Your task to perform on an android device: Go to accessibility settings Image 0: 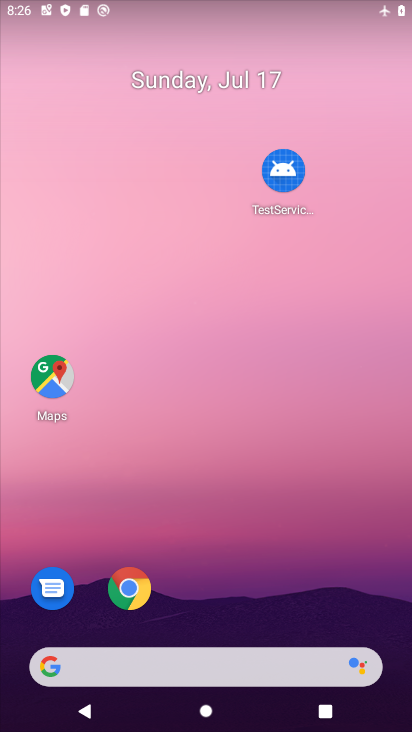
Step 0: drag from (245, 614) to (249, 137)
Your task to perform on an android device: Go to accessibility settings Image 1: 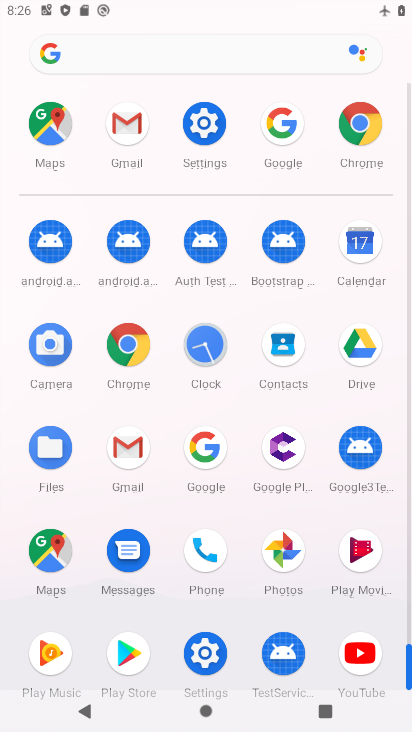
Step 1: click (200, 154)
Your task to perform on an android device: Go to accessibility settings Image 2: 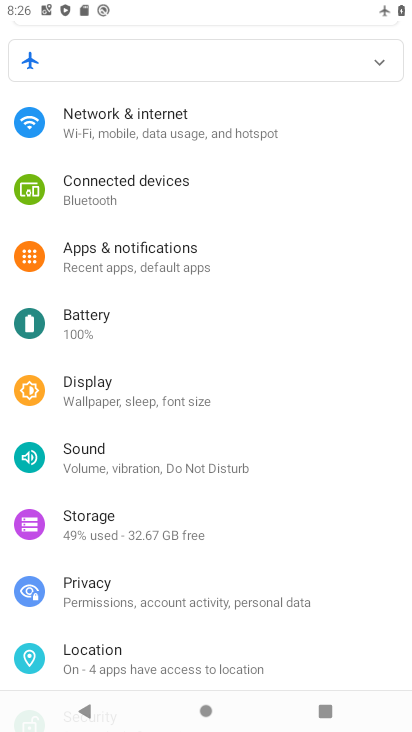
Step 2: drag from (136, 510) to (189, 172)
Your task to perform on an android device: Go to accessibility settings Image 3: 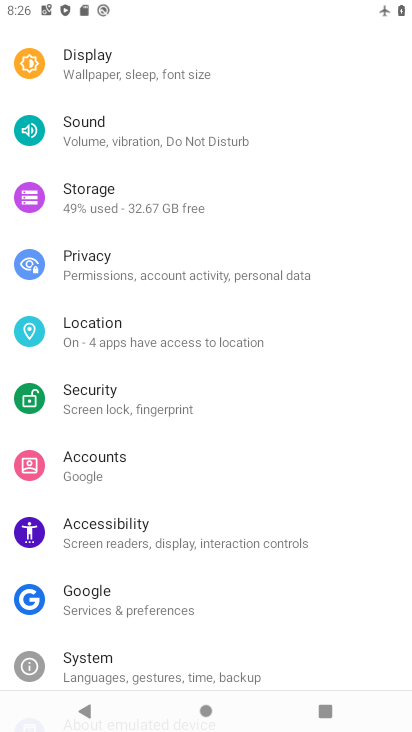
Step 3: click (179, 534)
Your task to perform on an android device: Go to accessibility settings Image 4: 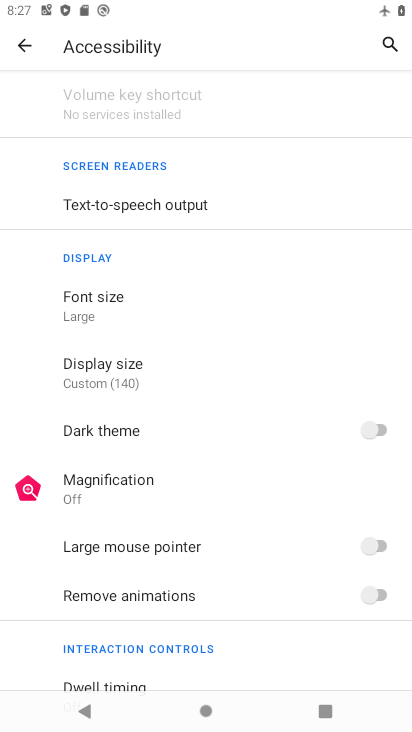
Step 4: task complete